Your task to perform on an android device: Open Youtube and go to the subscriptions tab Image 0: 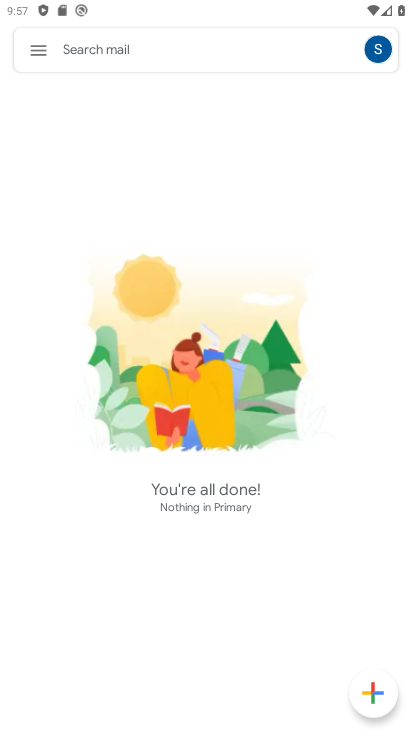
Step 0: press home button
Your task to perform on an android device: Open Youtube and go to the subscriptions tab Image 1: 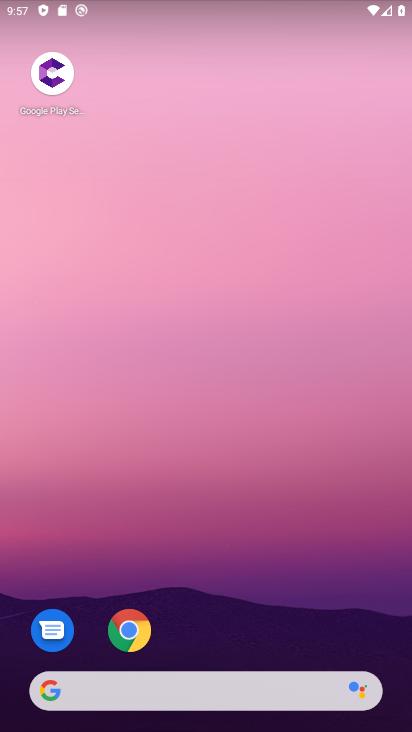
Step 1: drag from (368, 601) to (372, 85)
Your task to perform on an android device: Open Youtube and go to the subscriptions tab Image 2: 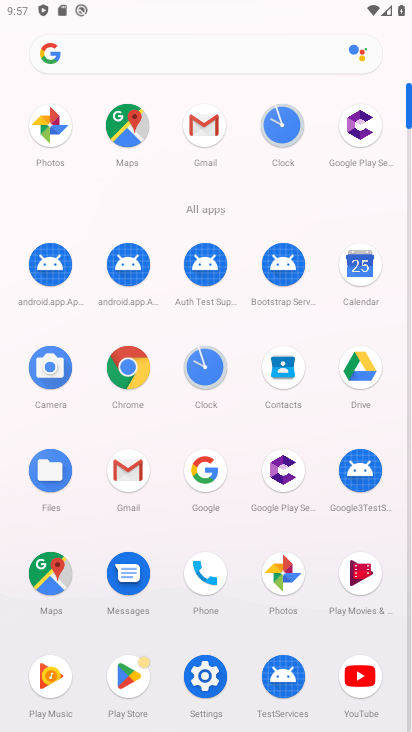
Step 2: click (358, 682)
Your task to perform on an android device: Open Youtube and go to the subscriptions tab Image 3: 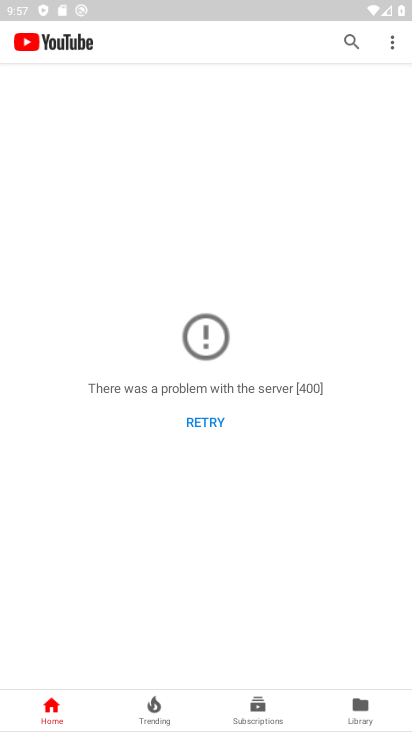
Step 3: click (259, 712)
Your task to perform on an android device: Open Youtube and go to the subscriptions tab Image 4: 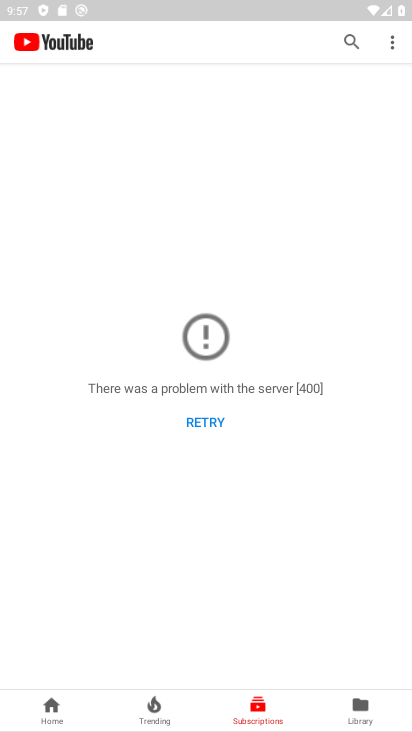
Step 4: task complete